Your task to perform on an android device: Open sound settings Image 0: 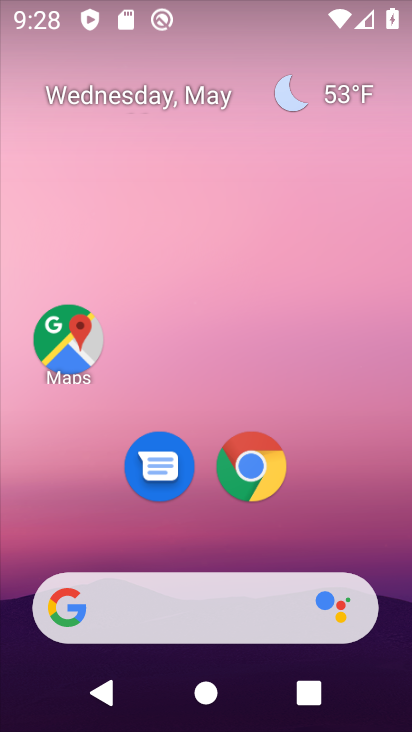
Step 0: drag from (211, 488) to (280, 64)
Your task to perform on an android device: Open sound settings Image 1: 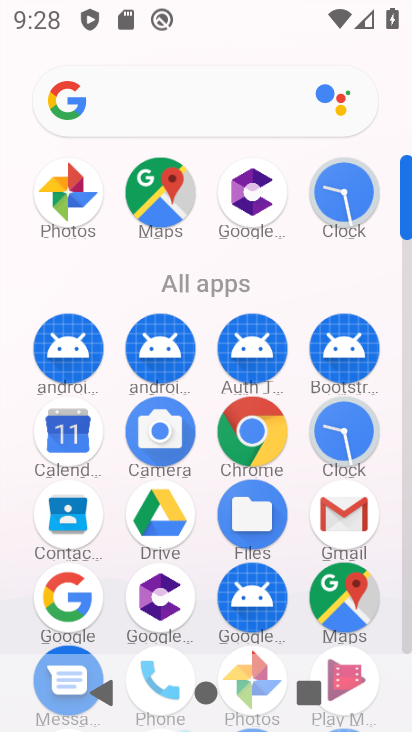
Step 1: drag from (195, 616) to (223, 134)
Your task to perform on an android device: Open sound settings Image 2: 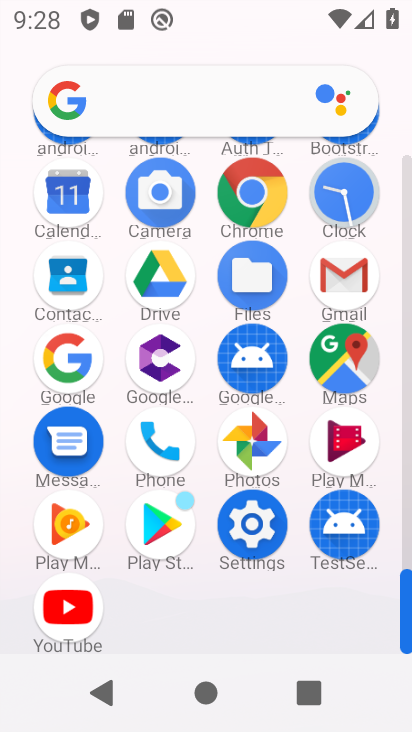
Step 2: click (267, 553)
Your task to perform on an android device: Open sound settings Image 3: 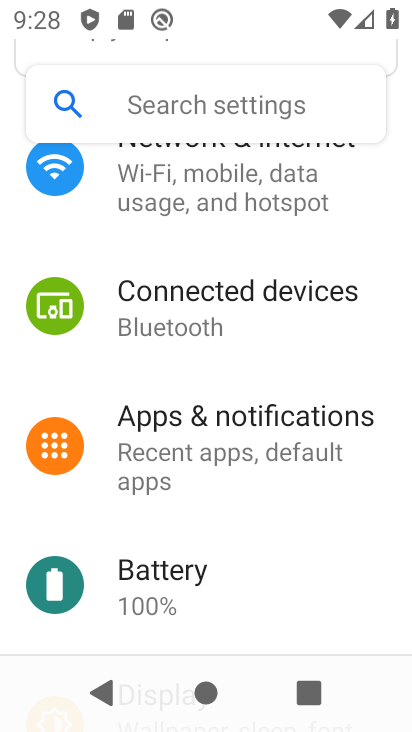
Step 3: drag from (276, 525) to (340, 59)
Your task to perform on an android device: Open sound settings Image 4: 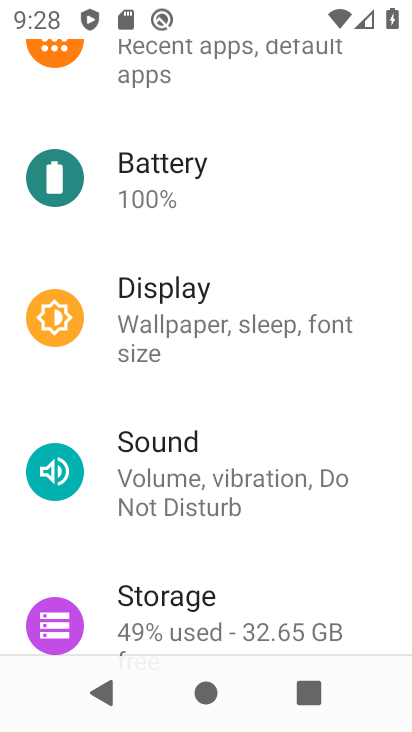
Step 4: click (171, 470)
Your task to perform on an android device: Open sound settings Image 5: 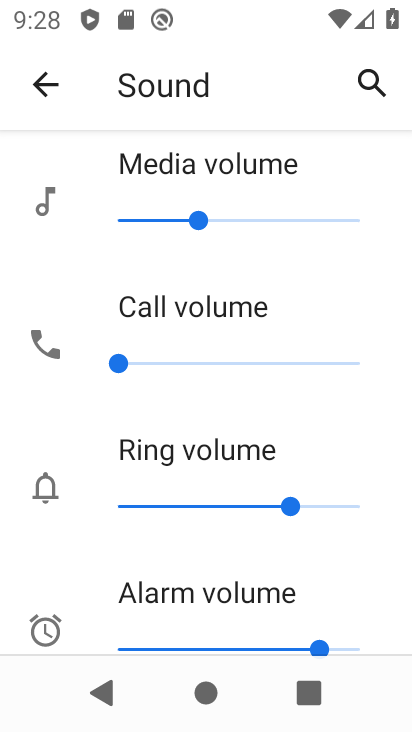
Step 5: task complete